Your task to perform on an android device: Open Yahoo.com Image 0: 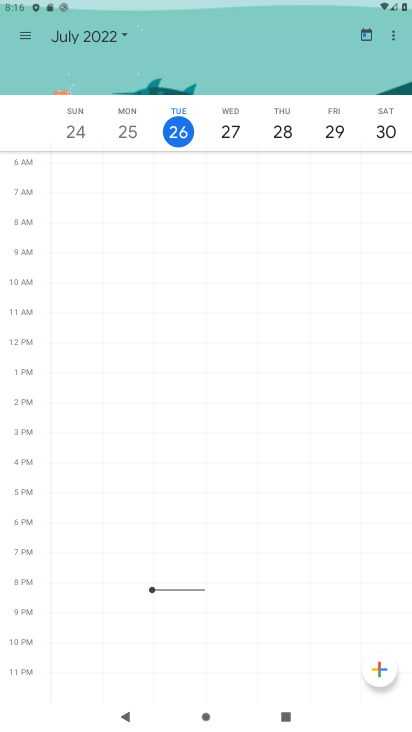
Step 0: press home button
Your task to perform on an android device: Open Yahoo.com Image 1: 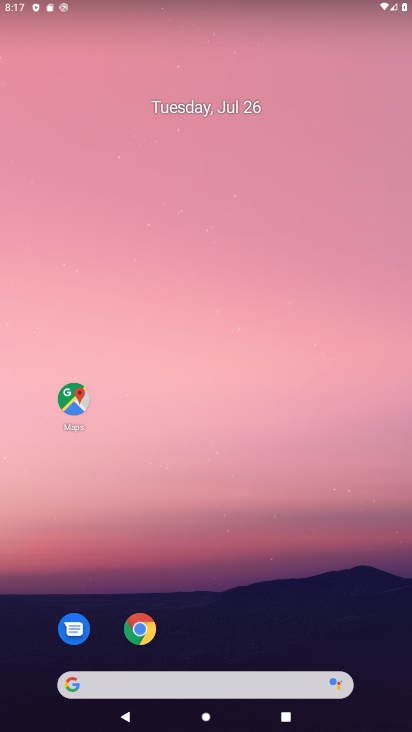
Step 1: click (149, 621)
Your task to perform on an android device: Open Yahoo.com Image 2: 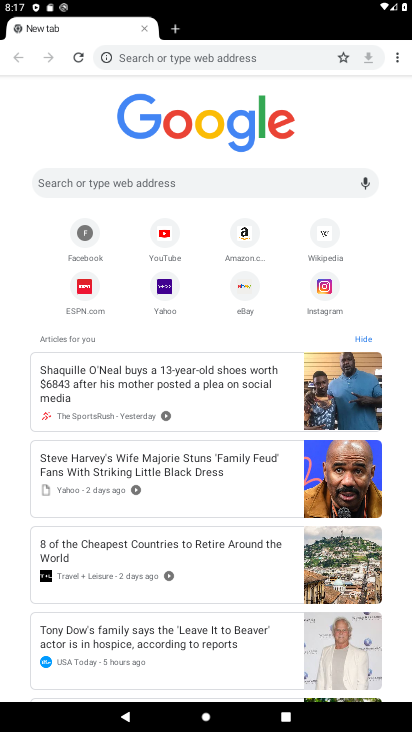
Step 2: click (164, 303)
Your task to perform on an android device: Open Yahoo.com Image 3: 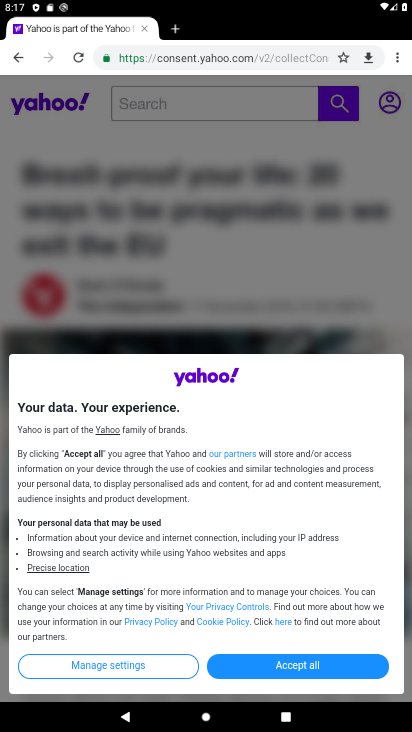
Step 3: click (331, 667)
Your task to perform on an android device: Open Yahoo.com Image 4: 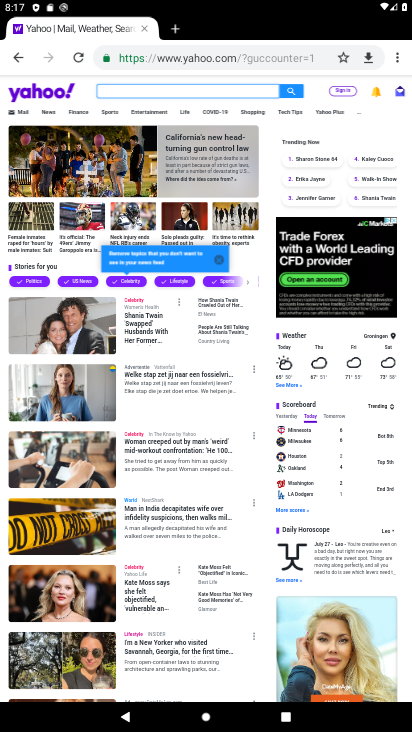
Step 4: task complete